Your task to perform on an android device: turn off notifications settings in the gmail app Image 0: 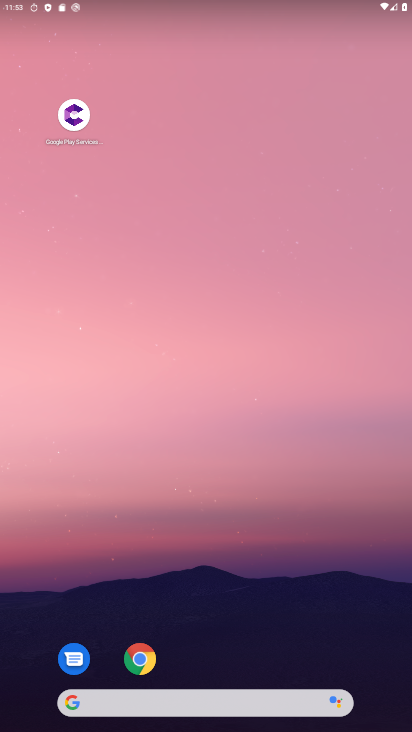
Step 0: drag from (290, 251) to (246, 0)
Your task to perform on an android device: turn off notifications settings in the gmail app Image 1: 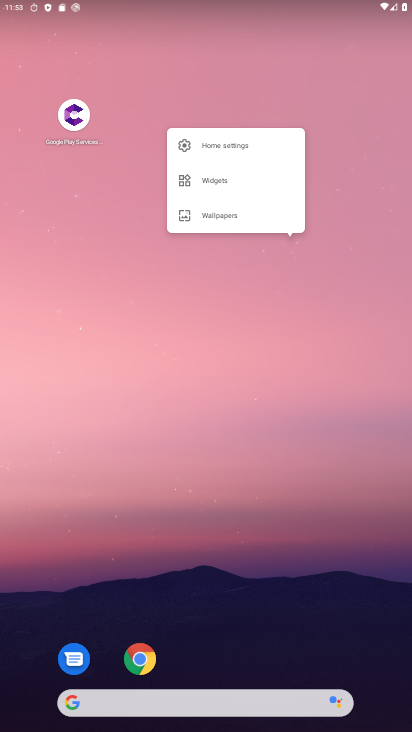
Step 1: drag from (265, 648) to (280, 4)
Your task to perform on an android device: turn off notifications settings in the gmail app Image 2: 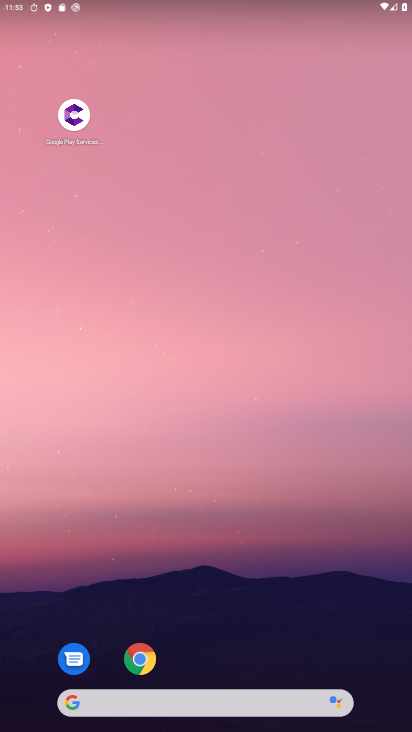
Step 2: drag from (225, 666) to (408, 288)
Your task to perform on an android device: turn off notifications settings in the gmail app Image 3: 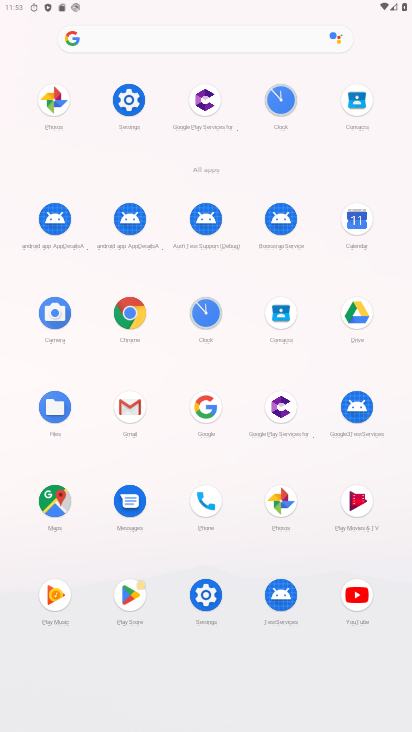
Step 3: click (139, 414)
Your task to perform on an android device: turn off notifications settings in the gmail app Image 4: 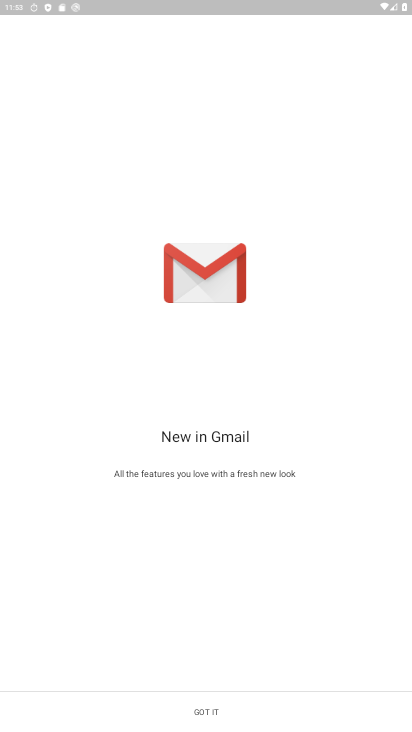
Step 4: click (210, 713)
Your task to perform on an android device: turn off notifications settings in the gmail app Image 5: 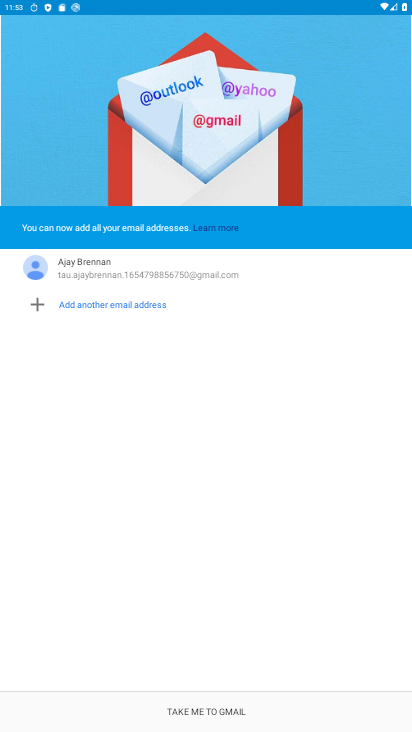
Step 5: click (227, 713)
Your task to perform on an android device: turn off notifications settings in the gmail app Image 6: 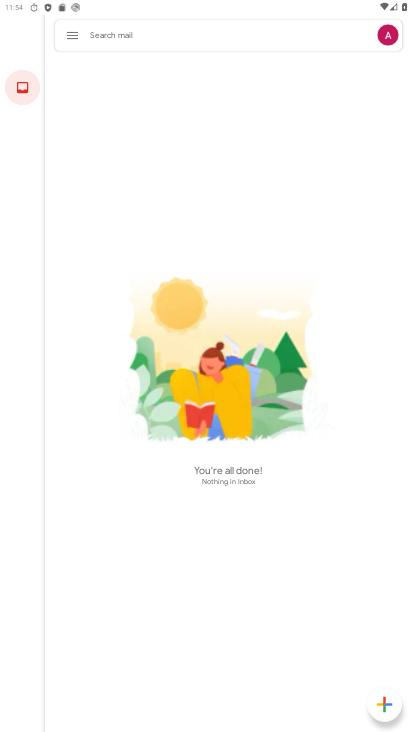
Step 6: click (64, 32)
Your task to perform on an android device: turn off notifications settings in the gmail app Image 7: 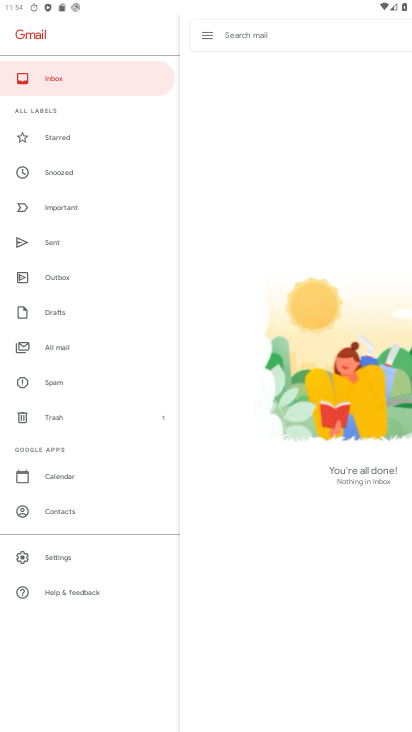
Step 7: click (68, 568)
Your task to perform on an android device: turn off notifications settings in the gmail app Image 8: 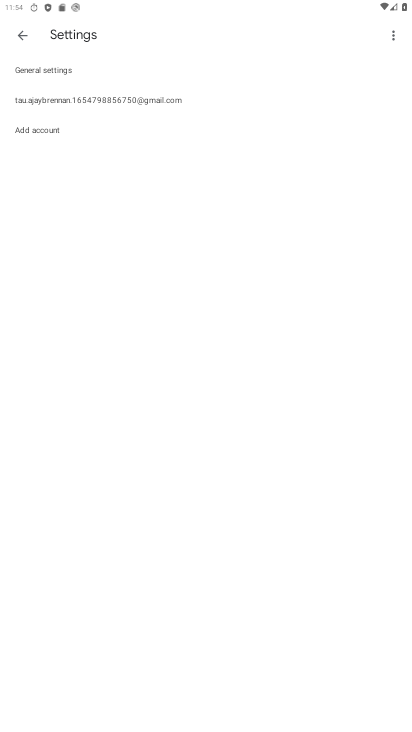
Step 8: click (58, 69)
Your task to perform on an android device: turn off notifications settings in the gmail app Image 9: 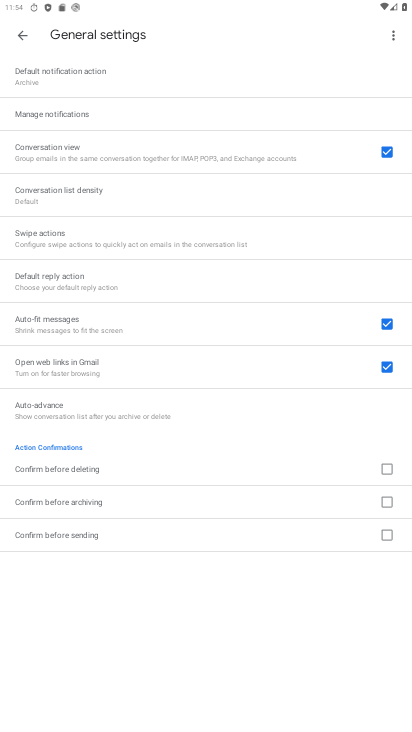
Step 9: click (132, 118)
Your task to perform on an android device: turn off notifications settings in the gmail app Image 10: 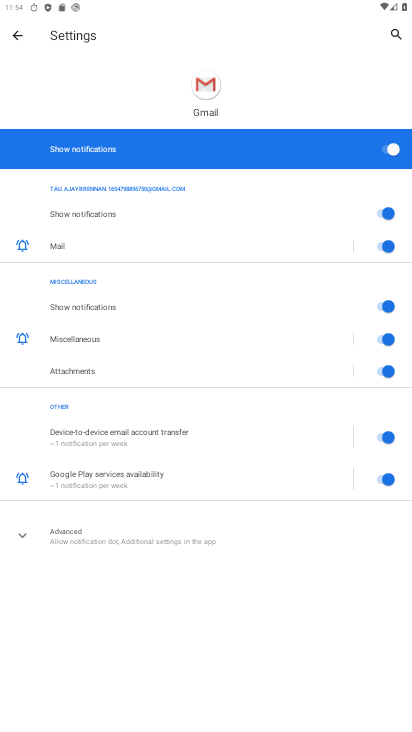
Step 10: click (370, 150)
Your task to perform on an android device: turn off notifications settings in the gmail app Image 11: 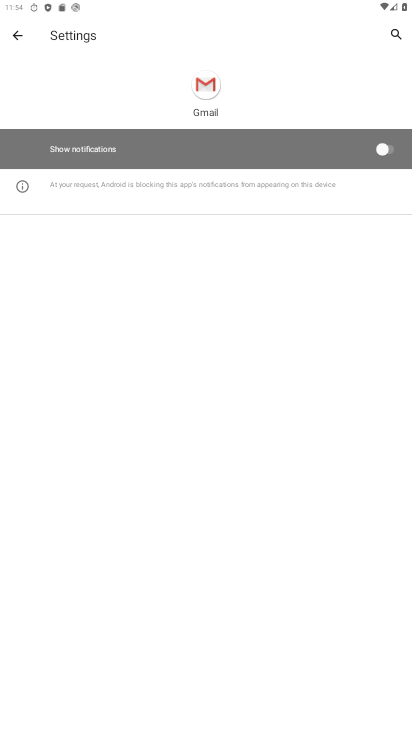
Step 11: task complete